Your task to perform on an android device: Open Chrome and go to settings Image 0: 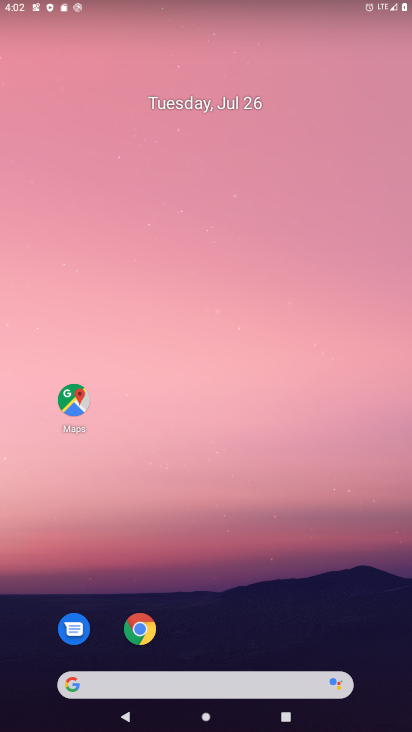
Step 0: click (137, 626)
Your task to perform on an android device: Open Chrome and go to settings Image 1: 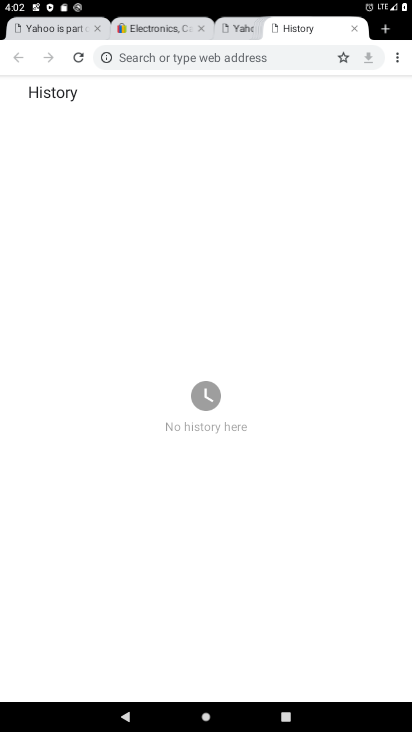
Step 1: click (396, 56)
Your task to perform on an android device: Open Chrome and go to settings Image 2: 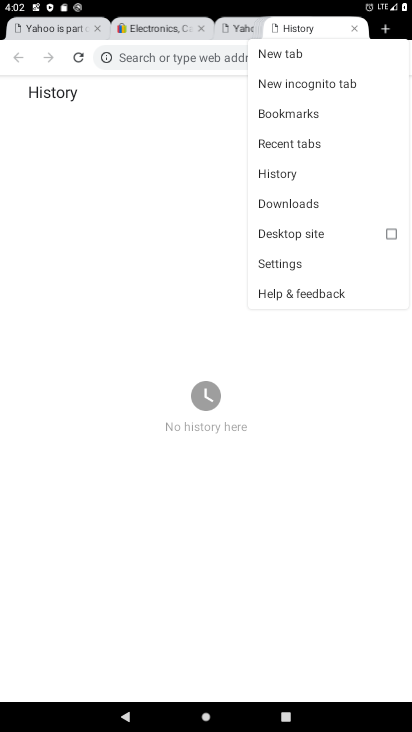
Step 2: click (267, 267)
Your task to perform on an android device: Open Chrome and go to settings Image 3: 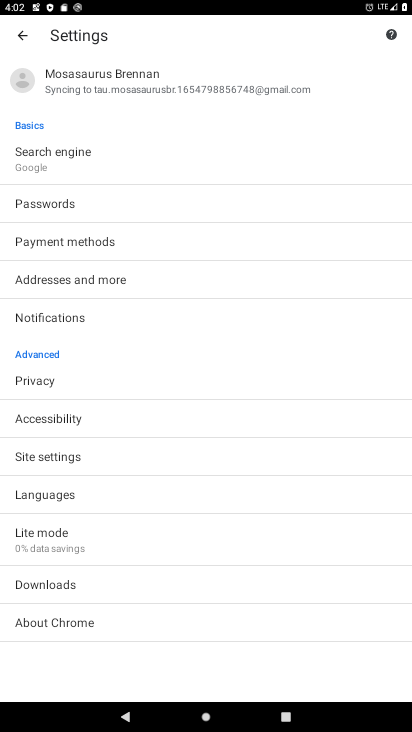
Step 3: task complete